Your task to perform on an android device: clear history in the chrome app Image 0: 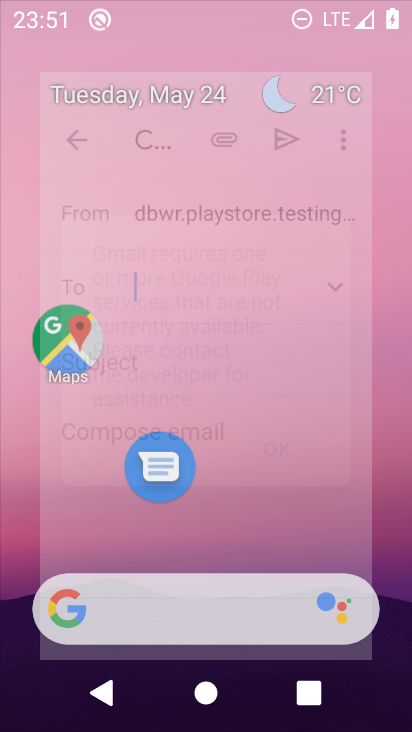
Step 0: drag from (223, 567) to (266, 144)
Your task to perform on an android device: clear history in the chrome app Image 1: 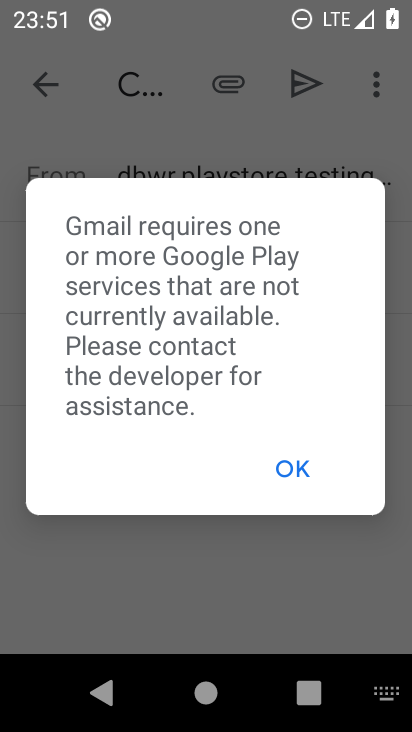
Step 1: press home button
Your task to perform on an android device: clear history in the chrome app Image 2: 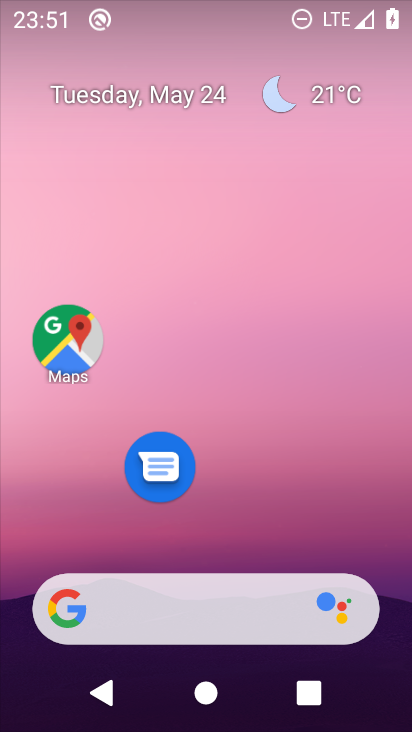
Step 2: drag from (265, 548) to (263, 372)
Your task to perform on an android device: clear history in the chrome app Image 3: 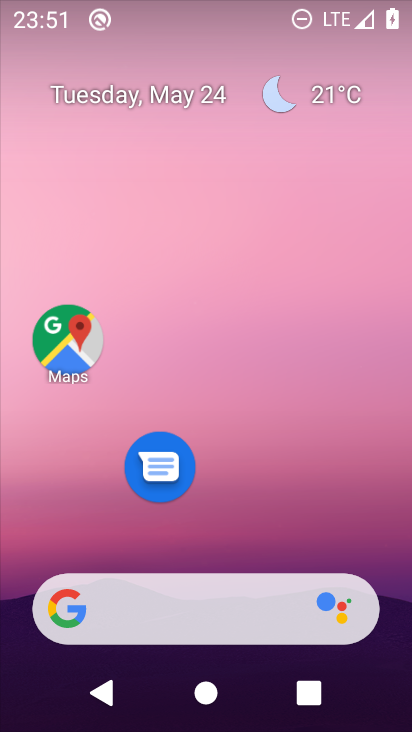
Step 3: drag from (219, 529) to (222, 83)
Your task to perform on an android device: clear history in the chrome app Image 4: 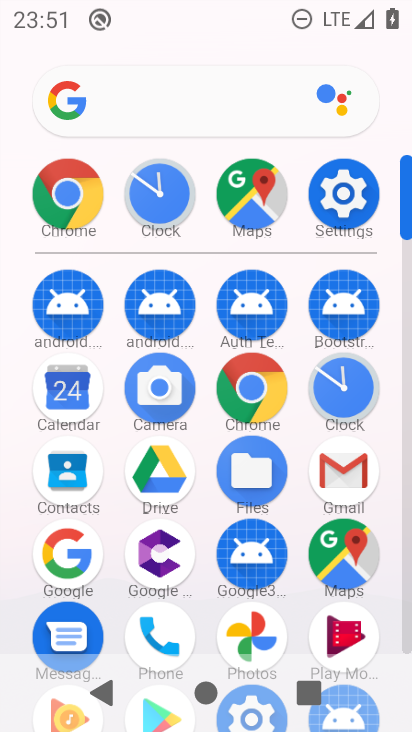
Step 4: drag from (190, 604) to (211, 331)
Your task to perform on an android device: clear history in the chrome app Image 5: 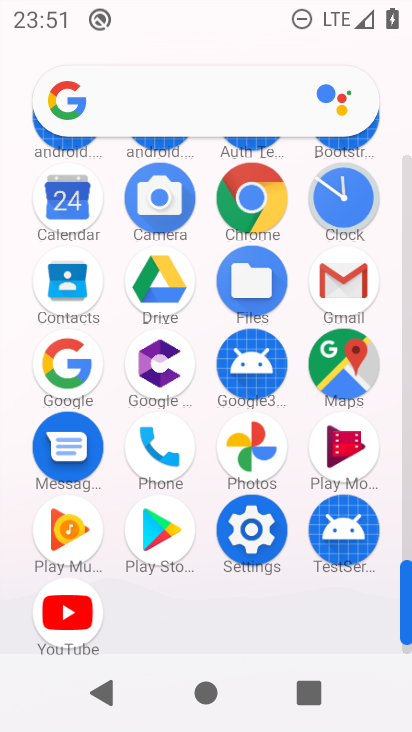
Step 5: click (254, 197)
Your task to perform on an android device: clear history in the chrome app Image 6: 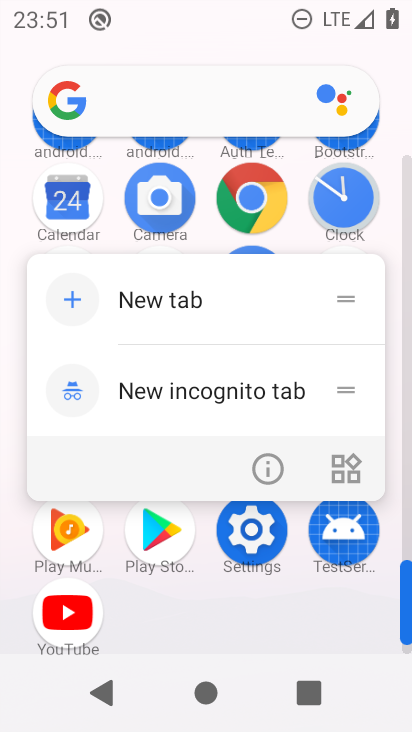
Step 6: click (283, 463)
Your task to perform on an android device: clear history in the chrome app Image 7: 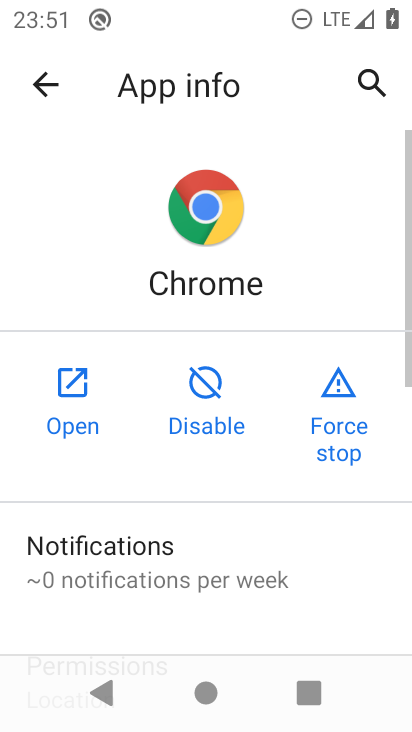
Step 7: click (60, 404)
Your task to perform on an android device: clear history in the chrome app Image 8: 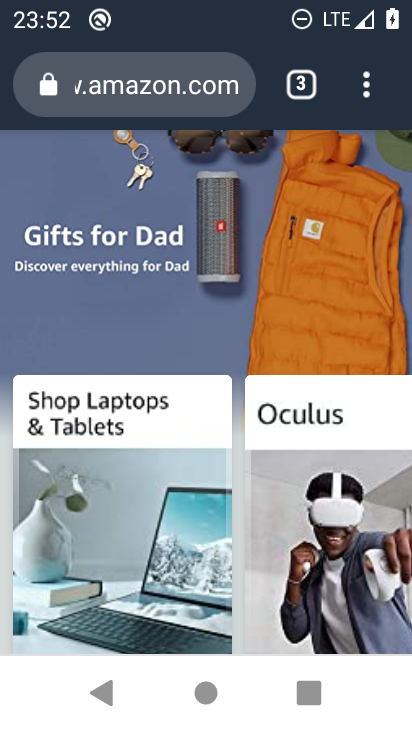
Step 8: drag from (240, 542) to (254, 277)
Your task to perform on an android device: clear history in the chrome app Image 9: 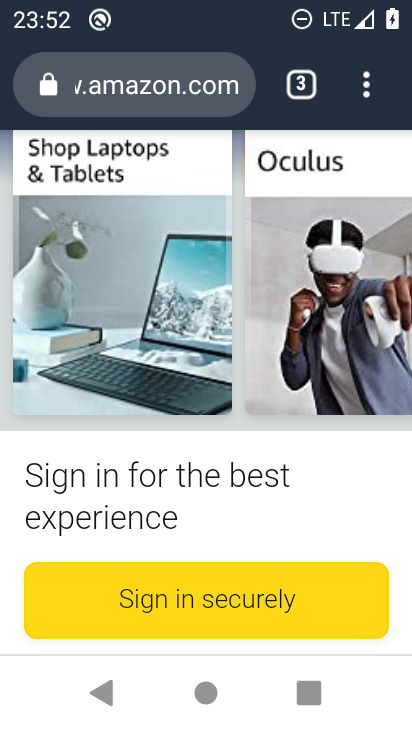
Step 9: drag from (243, 173) to (283, 525)
Your task to perform on an android device: clear history in the chrome app Image 10: 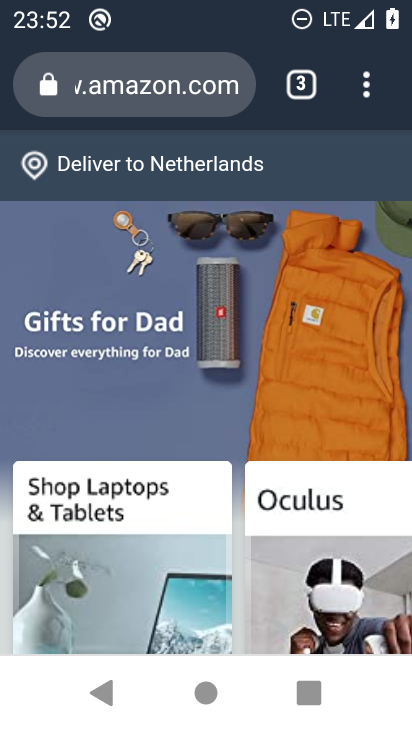
Step 10: click (373, 84)
Your task to perform on an android device: clear history in the chrome app Image 11: 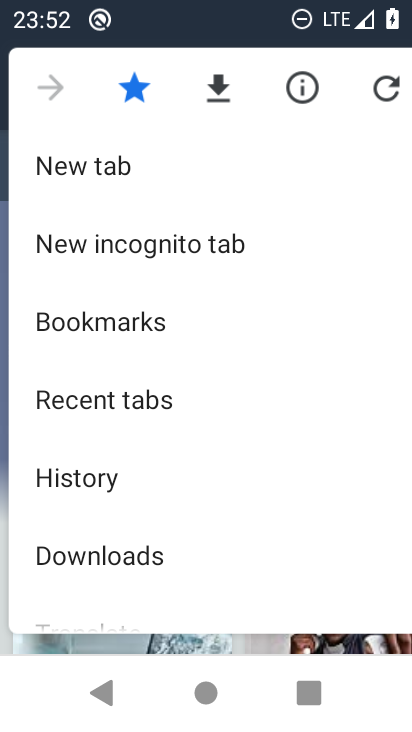
Step 11: click (111, 475)
Your task to perform on an android device: clear history in the chrome app Image 12: 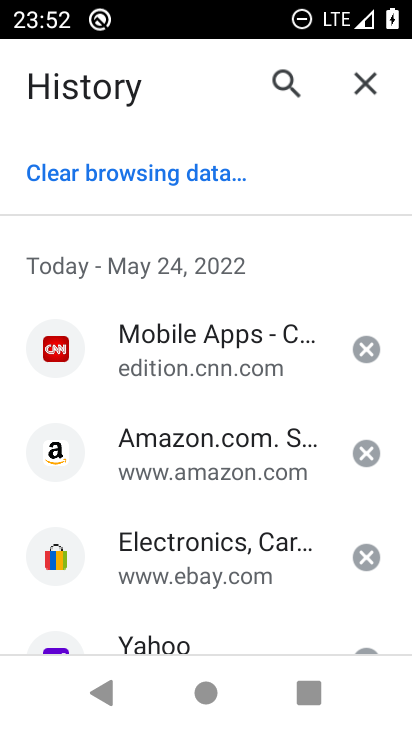
Step 12: drag from (181, 538) to (212, 281)
Your task to perform on an android device: clear history in the chrome app Image 13: 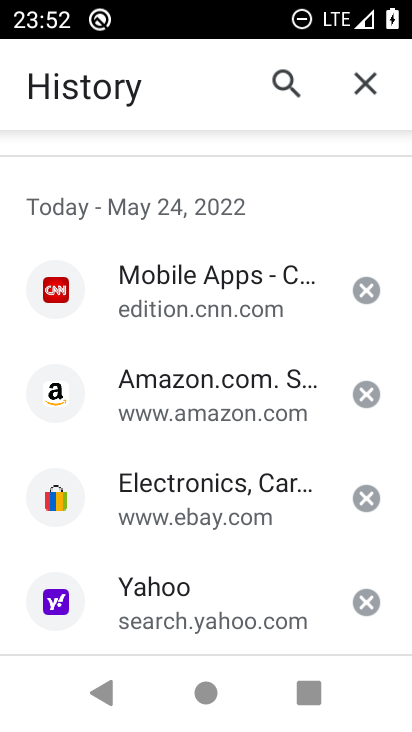
Step 13: drag from (182, 528) to (209, 294)
Your task to perform on an android device: clear history in the chrome app Image 14: 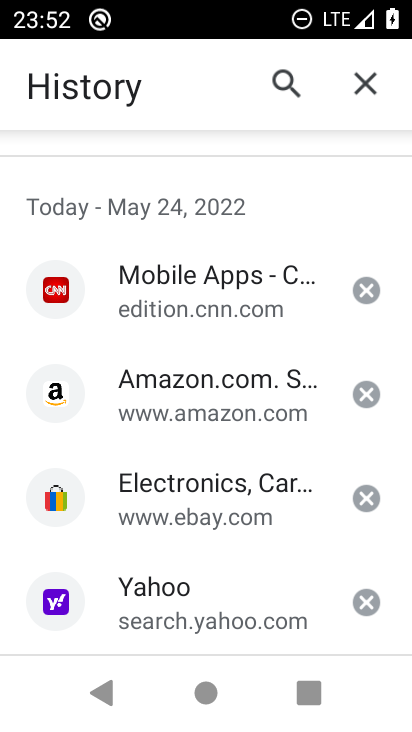
Step 14: drag from (209, 582) to (270, 187)
Your task to perform on an android device: clear history in the chrome app Image 15: 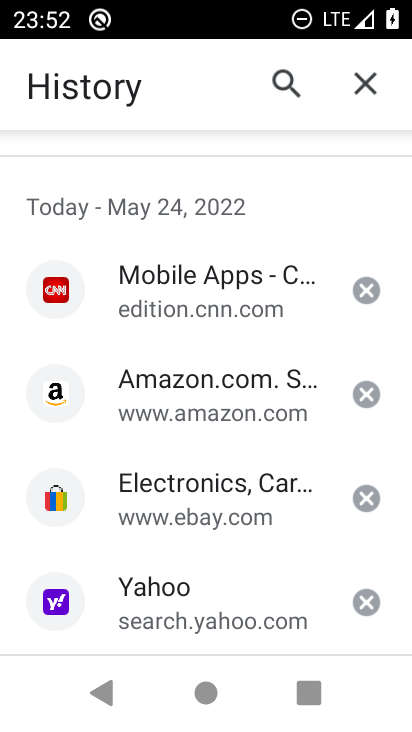
Step 15: drag from (247, 579) to (276, 96)
Your task to perform on an android device: clear history in the chrome app Image 16: 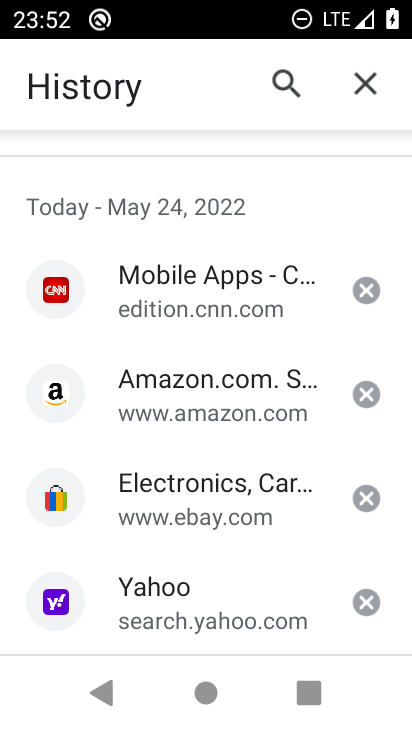
Step 16: drag from (241, 615) to (285, 359)
Your task to perform on an android device: clear history in the chrome app Image 17: 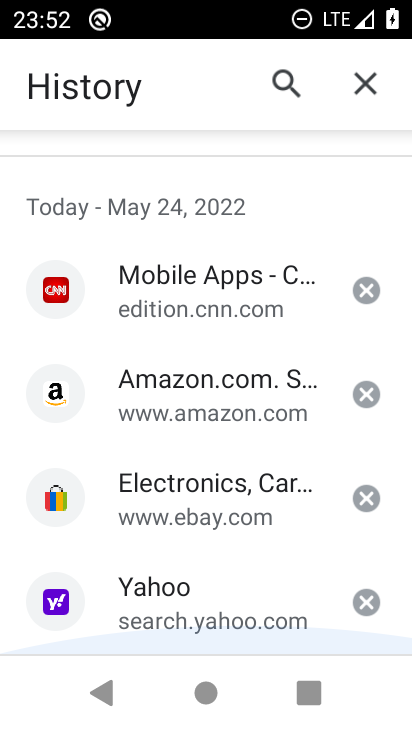
Step 17: drag from (285, 283) to (275, 662)
Your task to perform on an android device: clear history in the chrome app Image 18: 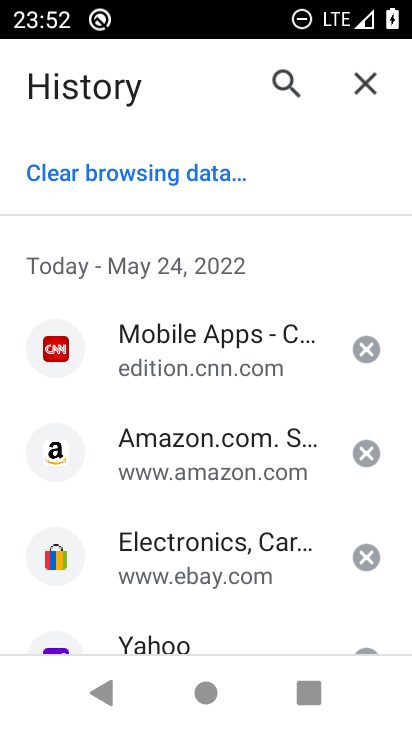
Step 18: click (71, 172)
Your task to perform on an android device: clear history in the chrome app Image 19: 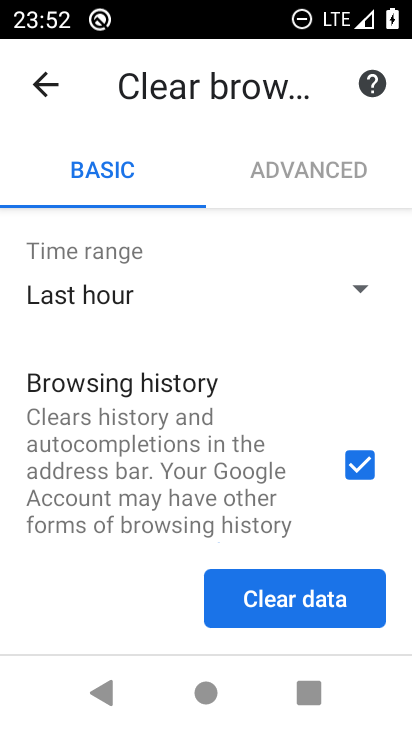
Step 19: click (356, 283)
Your task to perform on an android device: clear history in the chrome app Image 20: 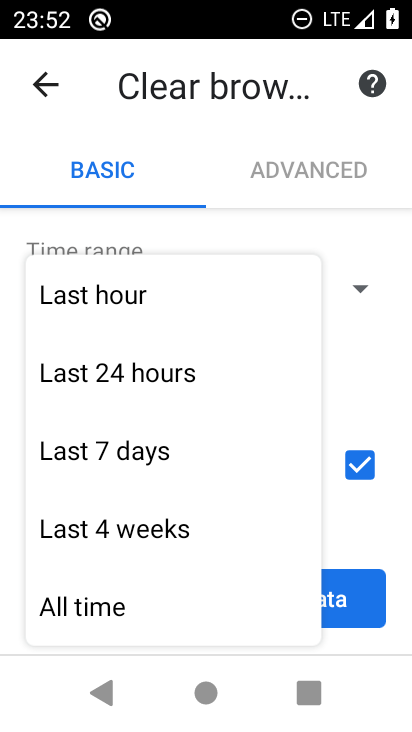
Step 20: click (122, 622)
Your task to perform on an android device: clear history in the chrome app Image 21: 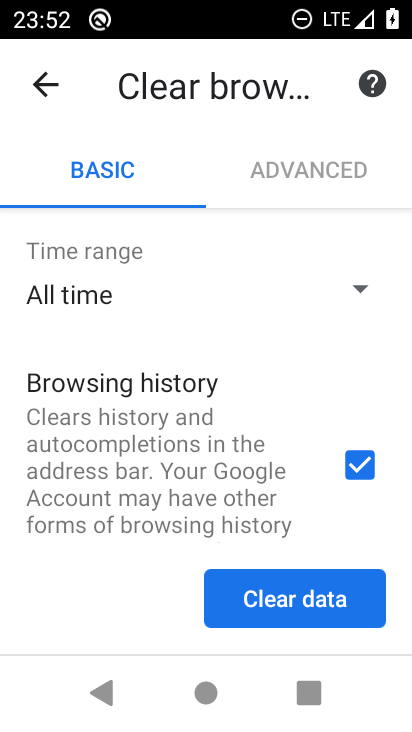
Step 21: click (265, 590)
Your task to perform on an android device: clear history in the chrome app Image 22: 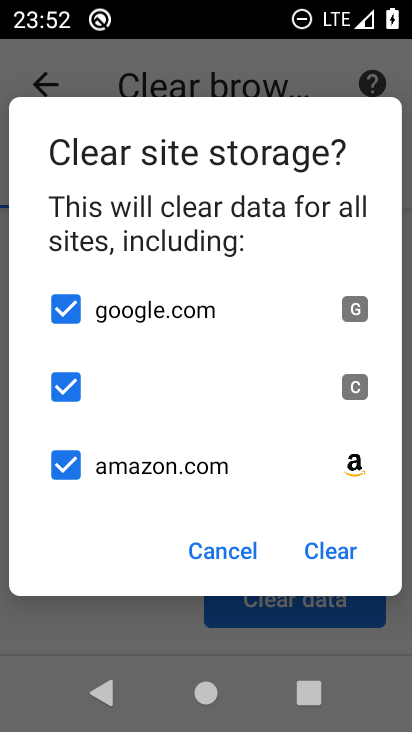
Step 22: click (319, 540)
Your task to perform on an android device: clear history in the chrome app Image 23: 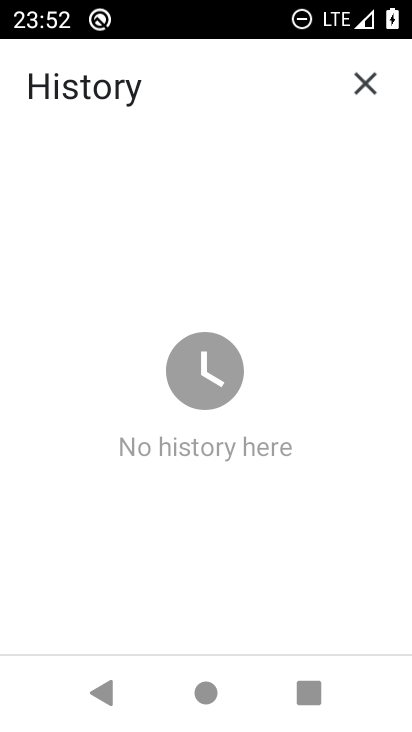
Step 23: task complete